Your task to perform on an android device: Open the stopwatch Image 0: 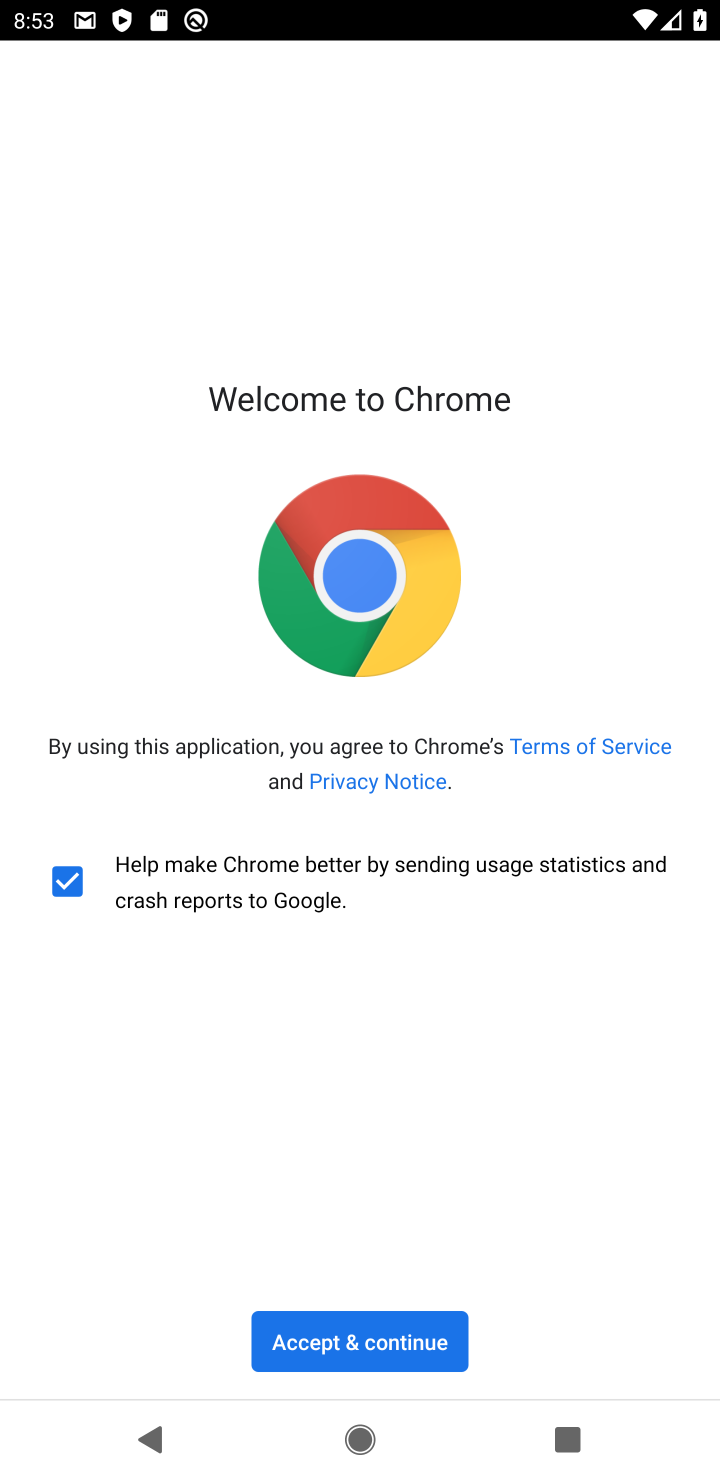
Step 0: press home button
Your task to perform on an android device: Open the stopwatch Image 1: 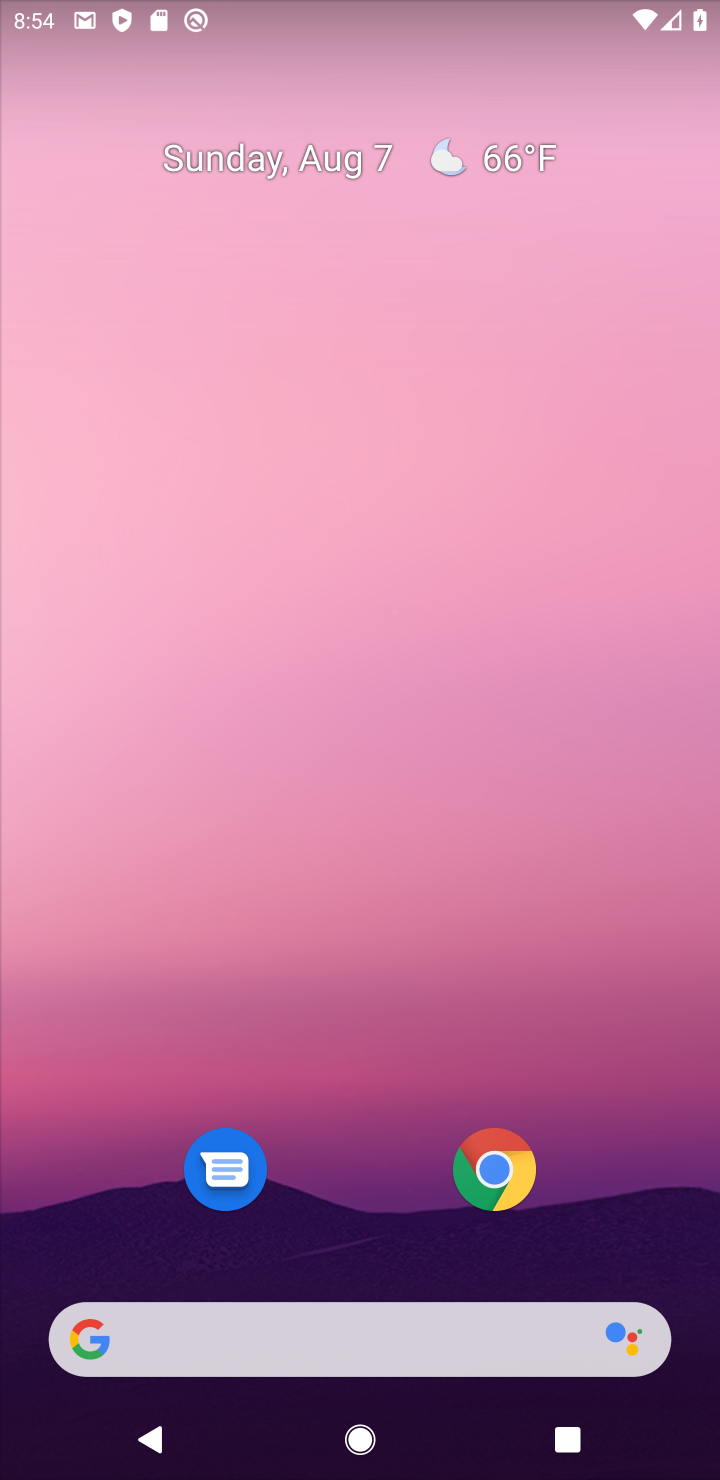
Step 1: drag from (393, 1277) to (248, 198)
Your task to perform on an android device: Open the stopwatch Image 2: 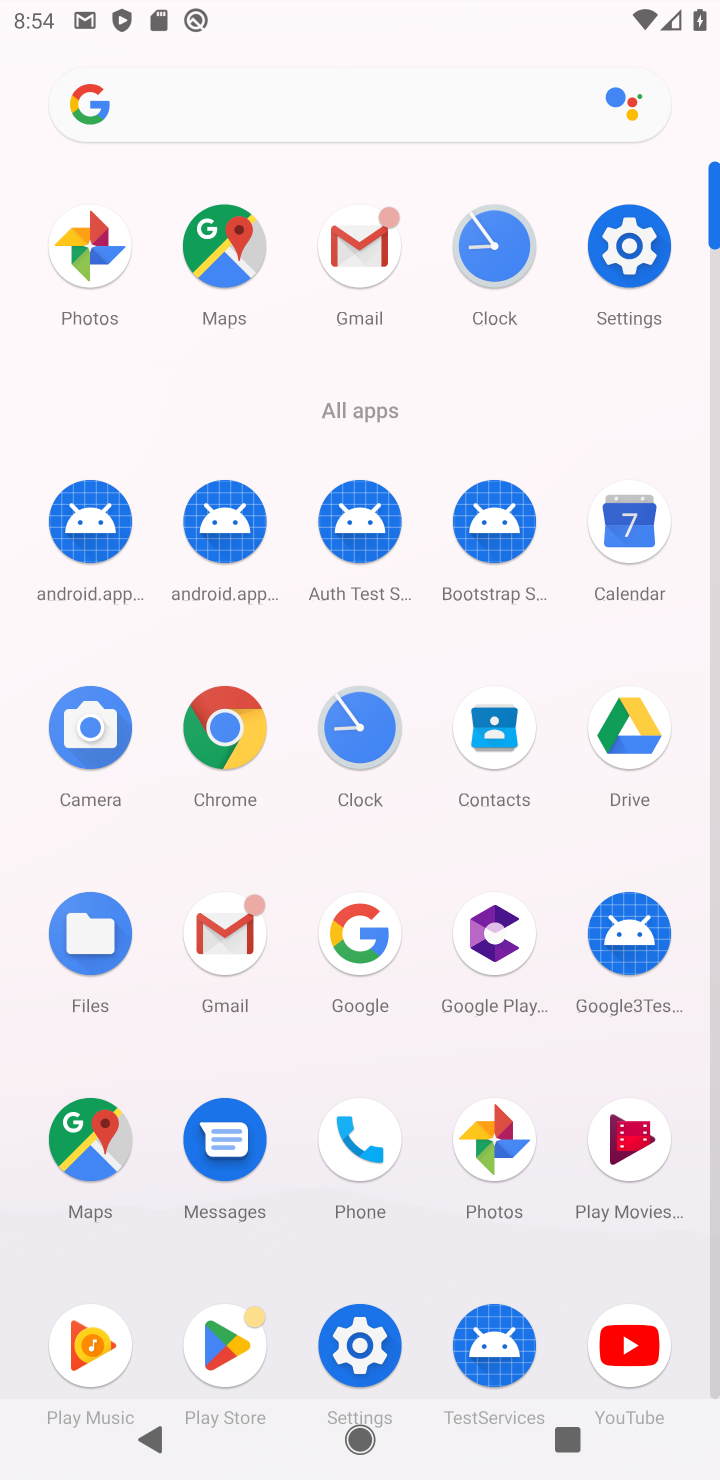
Step 2: click (361, 740)
Your task to perform on an android device: Open the stopwatch Image 3: 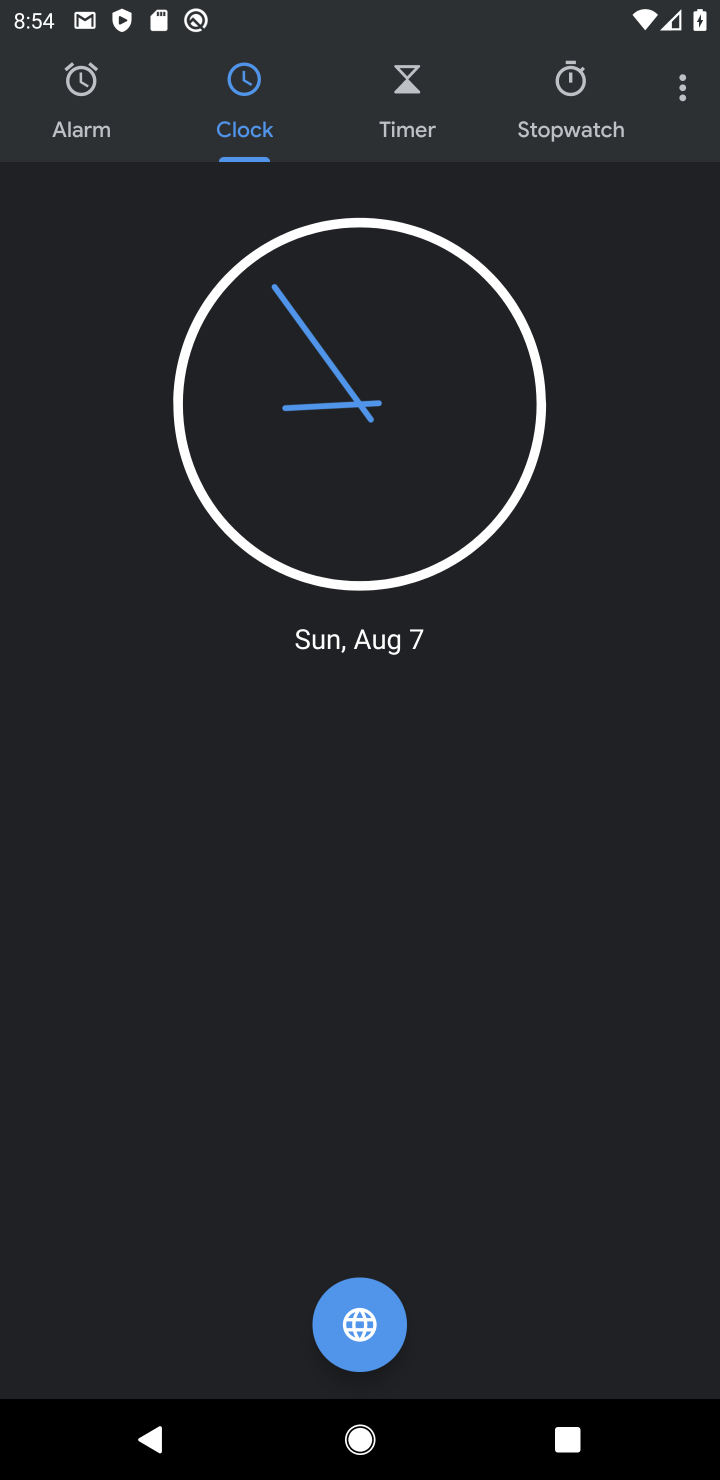
Step 3: click (563, 104)
Your task to perform on an android device: Open the stopwatch Image 4: 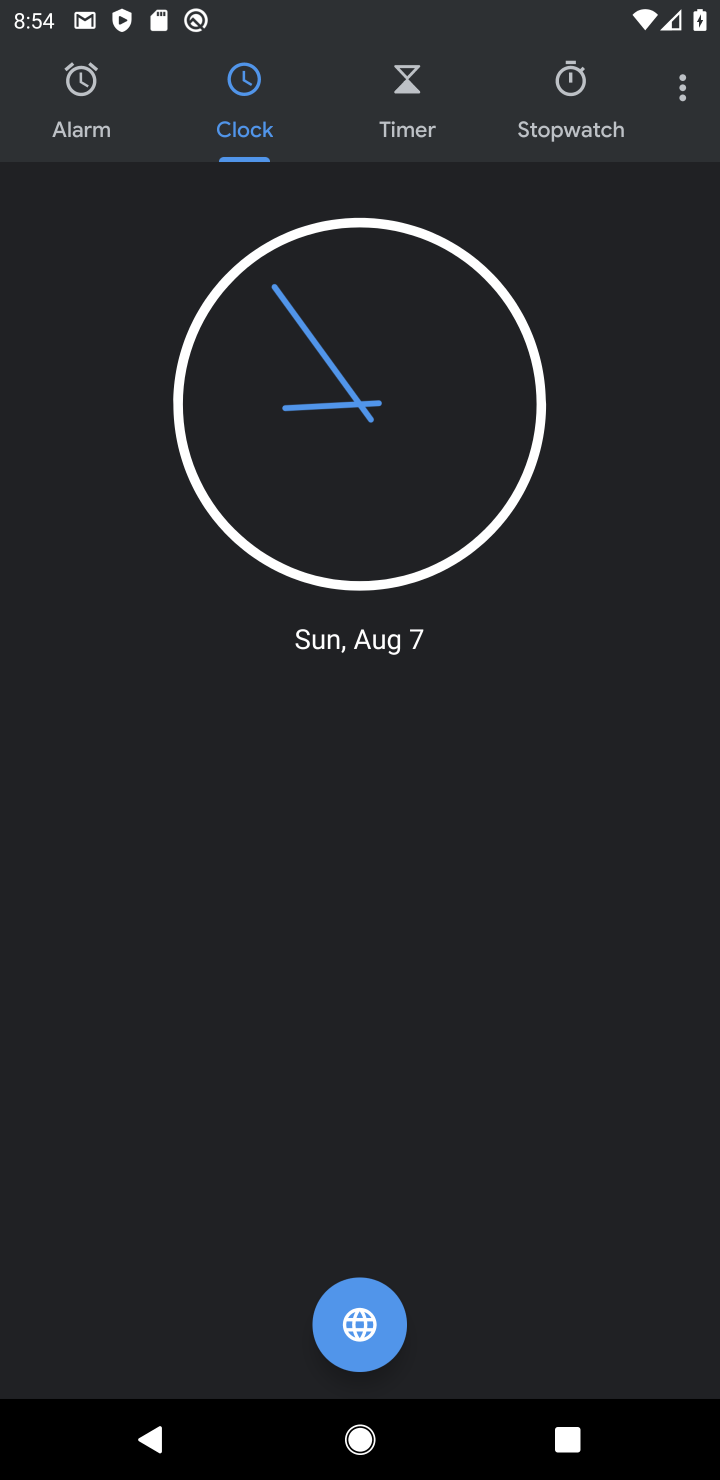
Step 4: click (551, 115)
Your task to perform on an android device: Open the stopwatch Image 5: 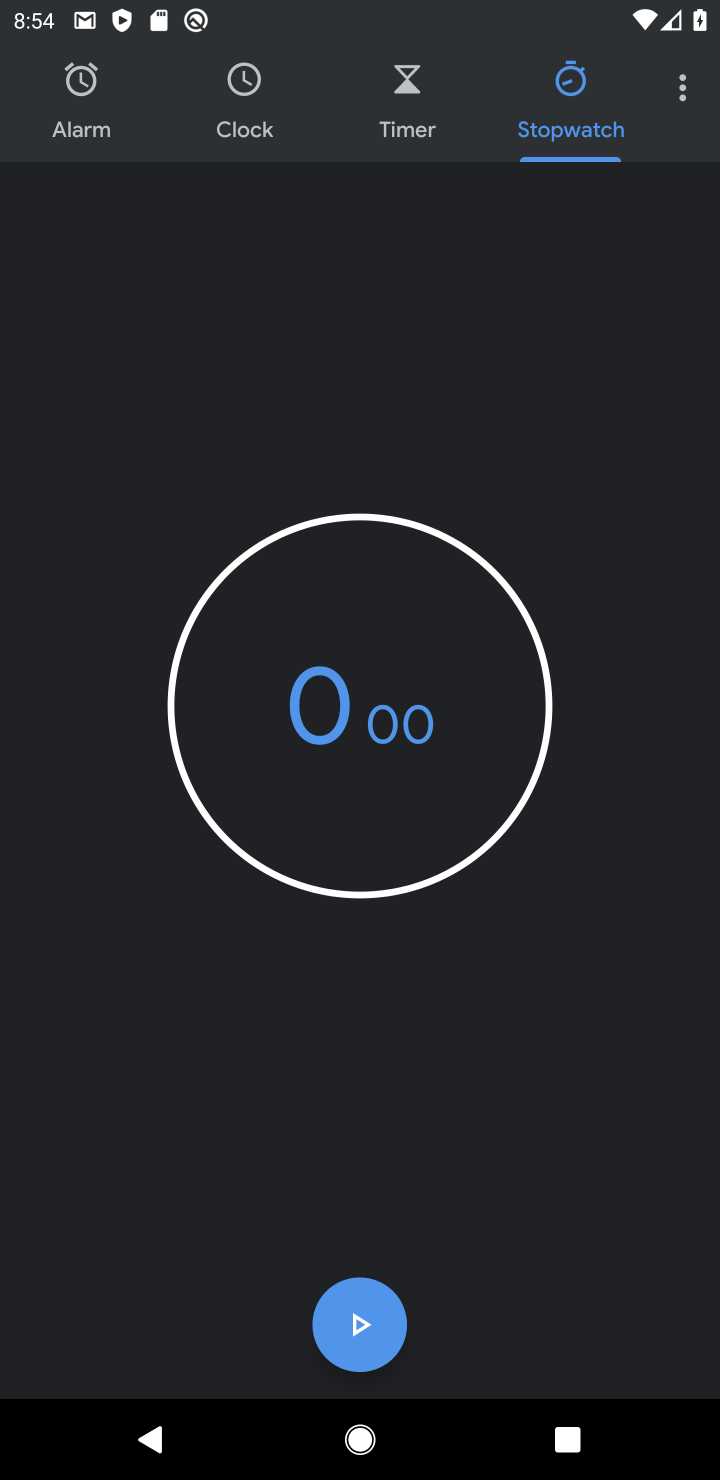
Step 5: click (612, 113)
Your task to perform on an android device: Open the stopwatch Image 6: 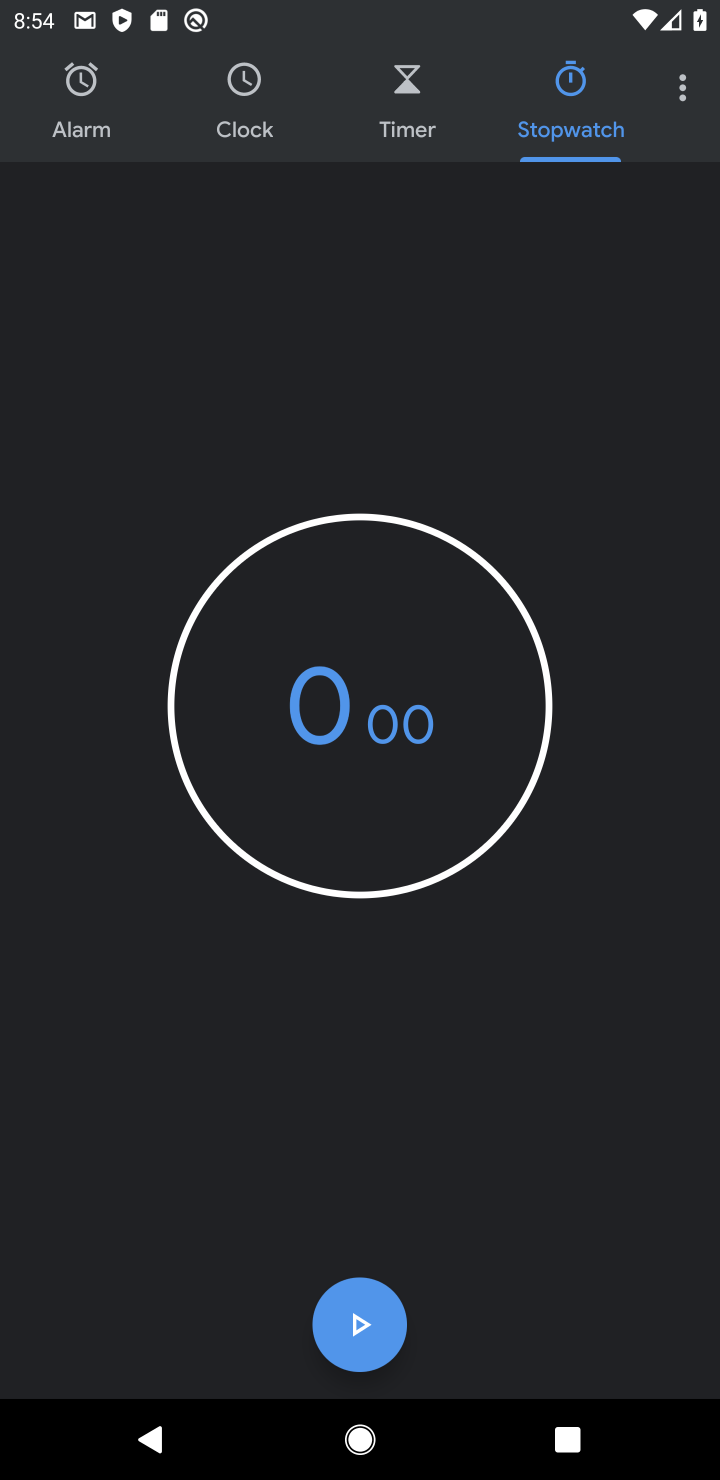
Step 6: task complete